Your task to perform on an android device: Go to CNN.com Image 0: 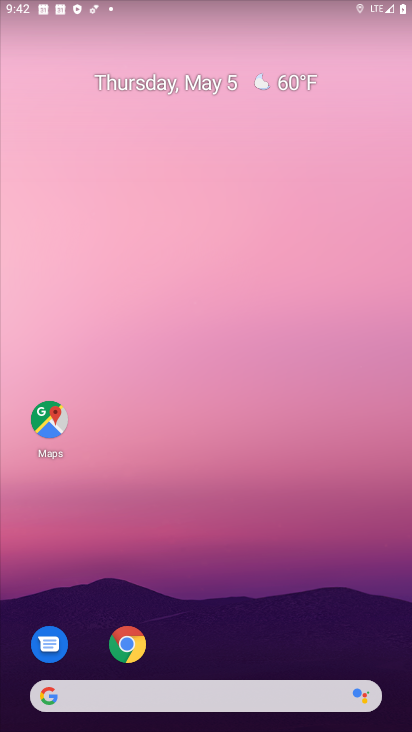
Step 0: drag from (183, 608) to (217, 159)
Your task to perform on an android device: Go to CNN.com Image 1: 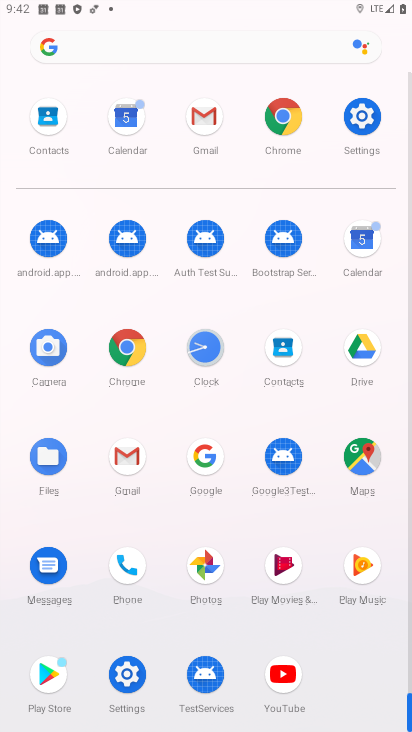
Step 1: click (145, 43)
Your task to perform on an android device: Go to CNN.com Image 2: 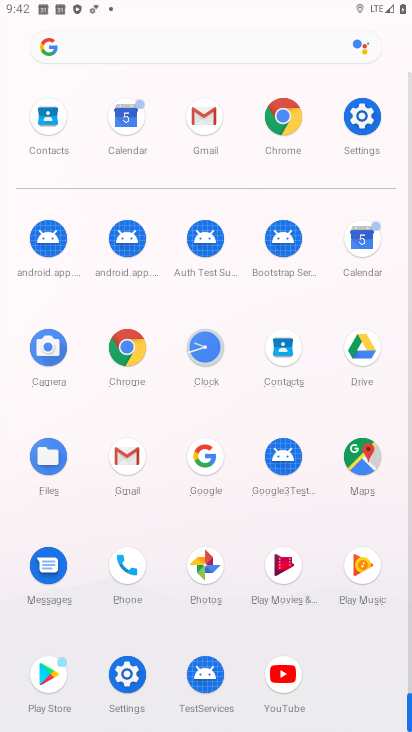
Step 2: click (145, 43)
Your task to perform on an android device: Go to CNN.com Image 3: 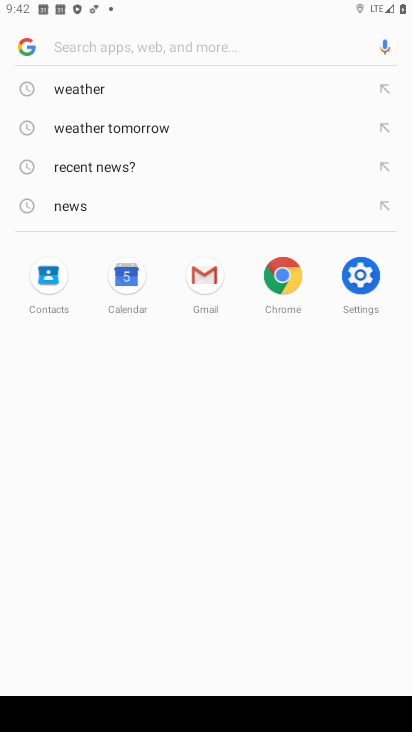
Step 3: type "cnn"
Your task to perform on an android device: Go to CNN.com Image 4: 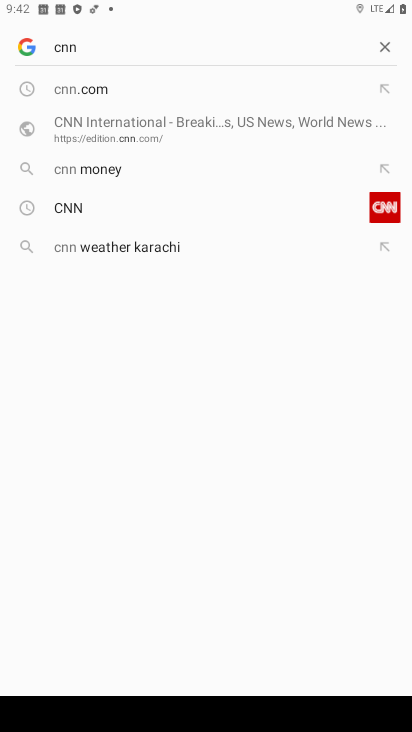
Step 4: click (129, 211)
Your task to perform on an android device: Go to CNN.com Image 5: 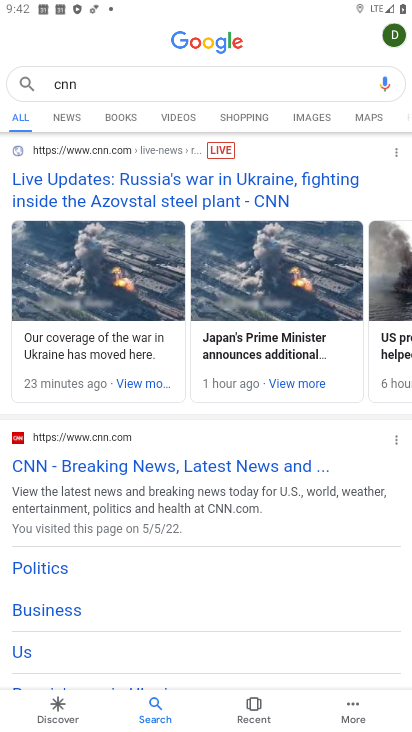
Step 5: drag from (202, 526) to (208, 236)
Your task to perform on an android device: Go to CNN.com Image 6: 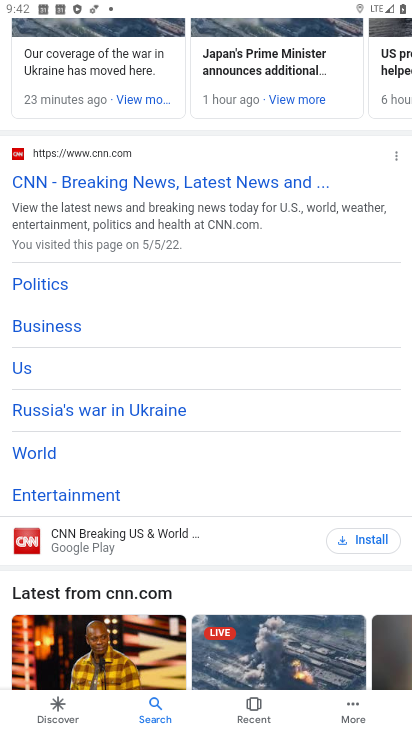
Step 6: click (125, 180)
Your task to perform on an android device: Go to CNN.com Image 7: 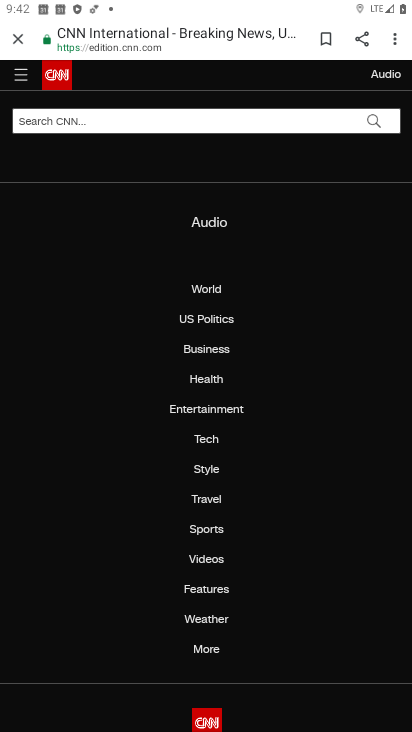
Step 7: task complete